Your task to perform on an android device: Open Google Chrome Image 0: 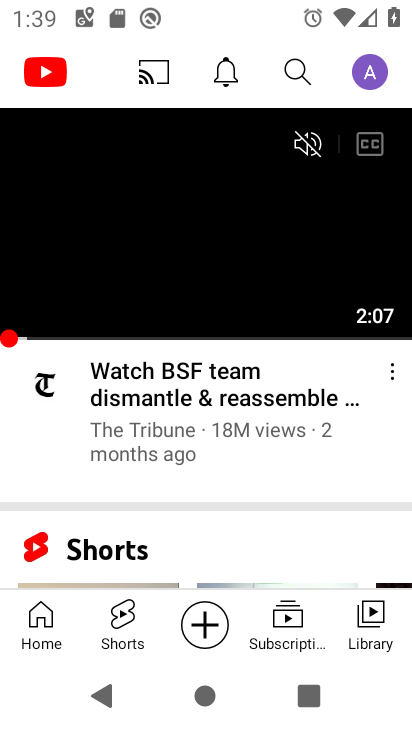
Step 0: press home button
Your task to perform on an android device: Open Google Chrome Image 1: 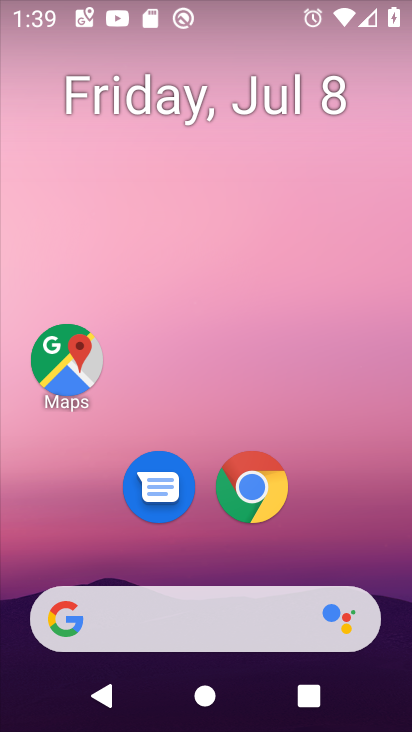
Step 1: drag from (337, 528) to (343, 181)
Your task to perform on an android device: Open Google Chrome Image 2: 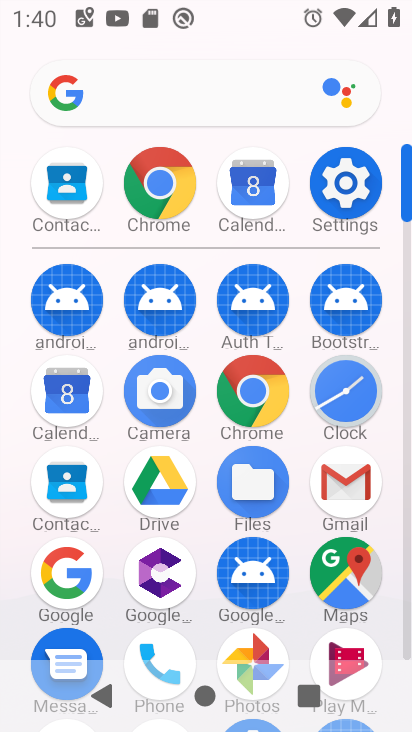
Step 2: click (268, 407)
Your task to perform on an android device: Open Google Chrome Image 3: 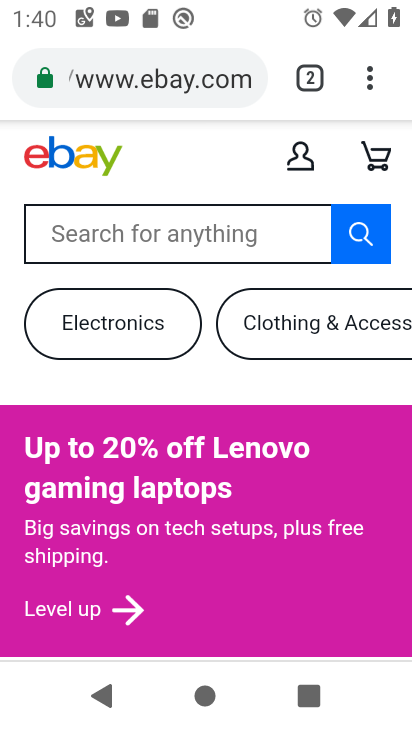
Step 3: task complete